Your task to perform on an android device: What's the weather going to be this weekend? Image 0: 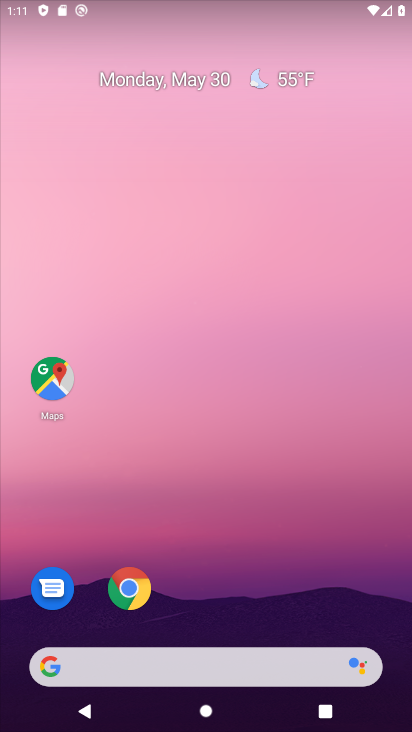
Step 0: click (288, 73)
Your task to perform on an android device: What's the weather going to be this weekend? Image 1: 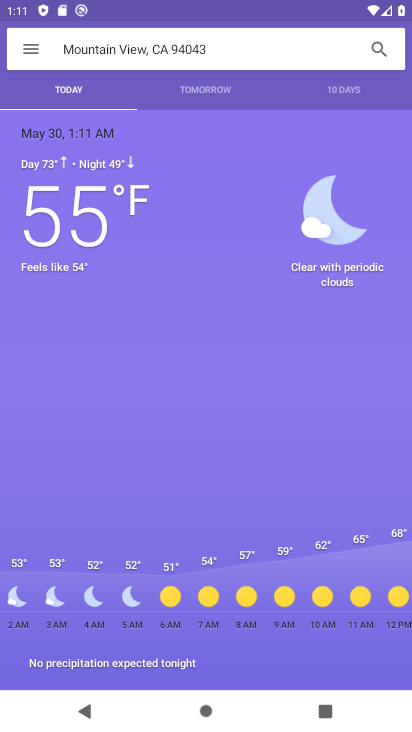
Step 1: click (344, 95)
Your task to perform on an android device: What's the weather going to be this weekend? Image 2: 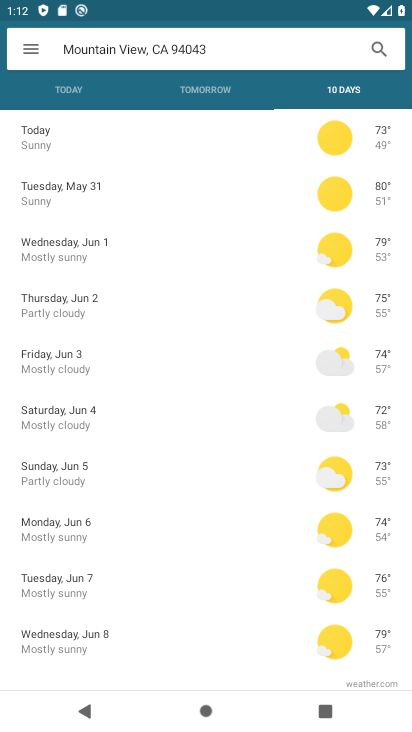
Step 2: task complete